Your task to perform on an android device: make emails show in primary in the gmail app Image 0: 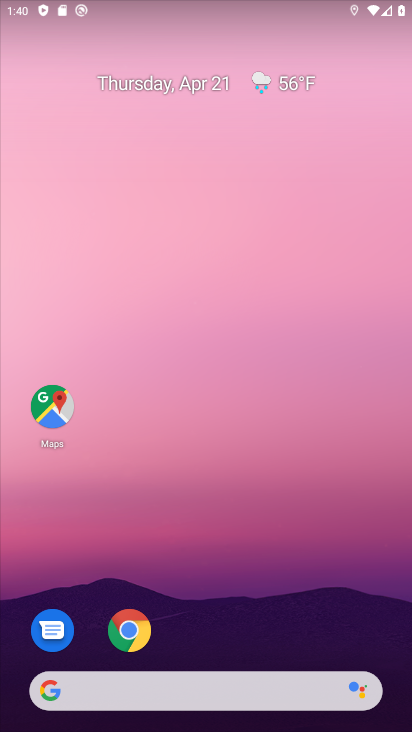
Step 0: drag from (341, 614) to (225, 16)
Your task to perform on an android device: make emails show in primary in the gmail app Image 1: 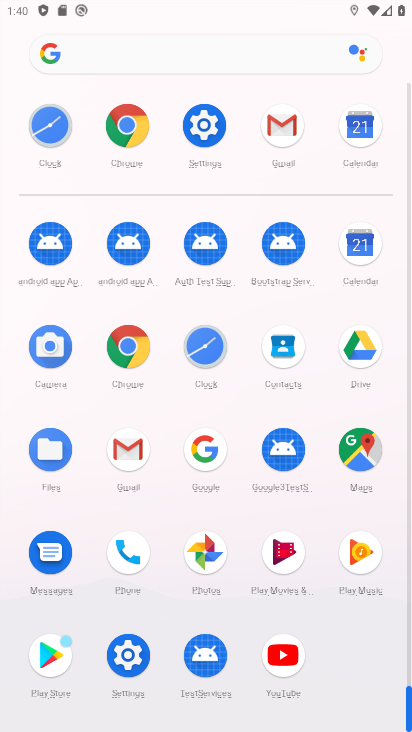
Step 1: click (113, 450)
Your task to perform on an android device: make emails show in primary in the gmail app Image 2: 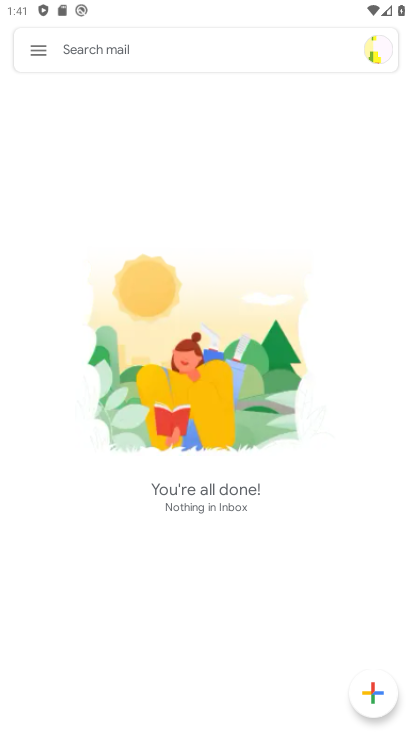
Step 2: click (44, 56)
Your task to perform on an android device: make emails show in primary in the gmail app Image 3: 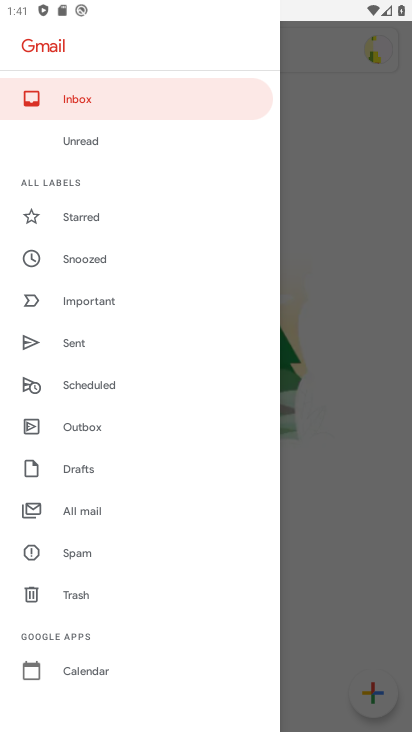
Step 3: drag from (192, 658) to (137, 217)
Your task to perform on an android device: make emails show in primary in the gmail app Image 4: 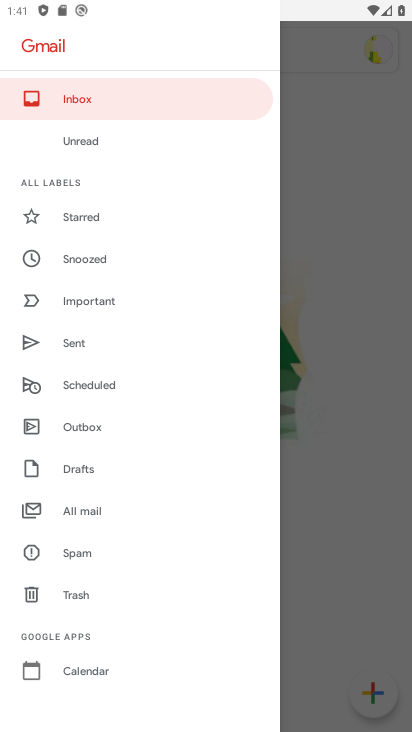
Step 4: drag from (118, 619) to (178, 147)
Your task to perform on an android device: make emails show in primary in the gmail app Image 5: 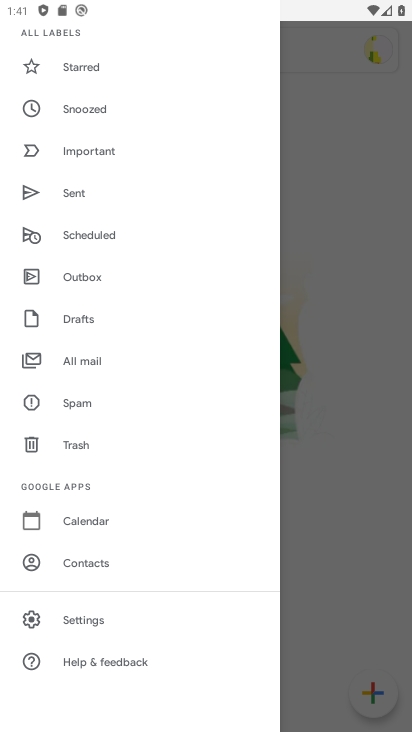
Step 5: click (94, 621)
Your task to perform on an android device: make emails show in primary in the gmail app Image 6: 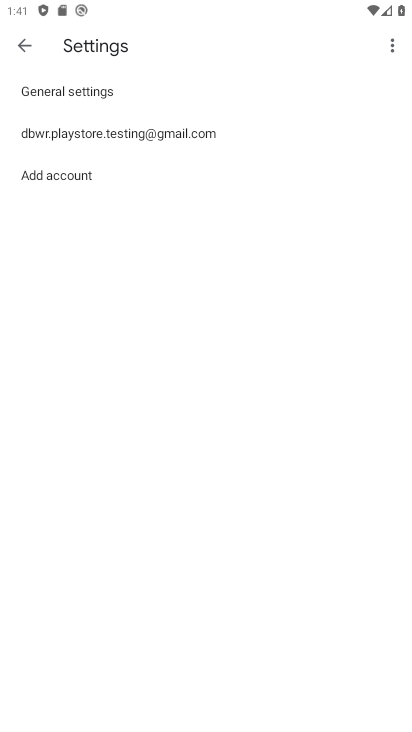
Step 6: click (171, 127)
Your task to perform on an android device: make emails show in primary in the gmail app Image 7: 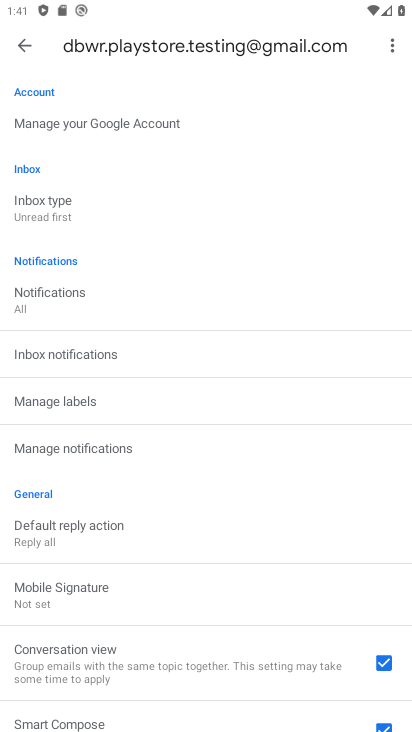
Step 7: click (46, 199)
Your task to perform on an android device: make emails show in primary in the gmail app Image 8: 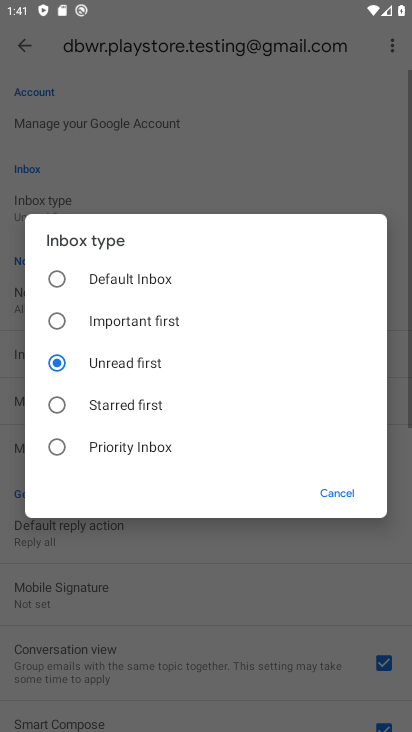
Step 8: click (94, 276)
Your task to perform on an android device: make emails show in primary in the gmail app Image 9: 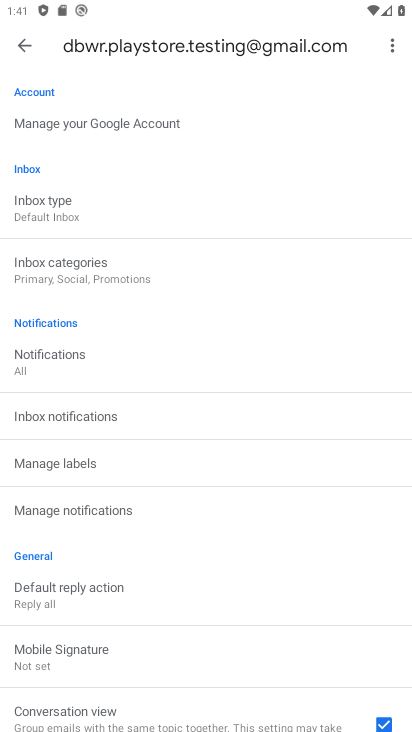
Step 9: click (70, 271)
Your task to perform on an android device: make emails show in primary in the gmail app Image 10: 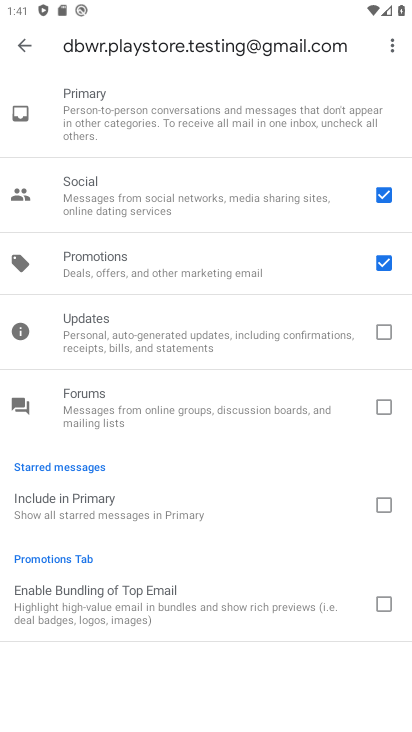
Step 10: click (390, 189)
Your task to perform on an android device: make emails show in primary in the gmail app Image 11: 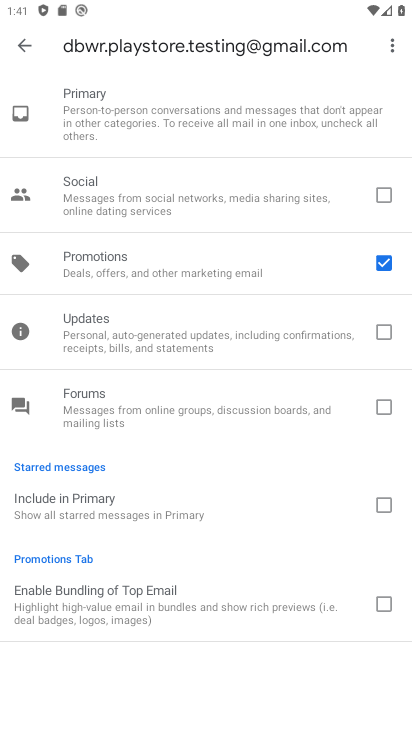
Step 11: click (382, 260)
Your task to perform on an android device: make emails show in primary in the gmail app Image 12: 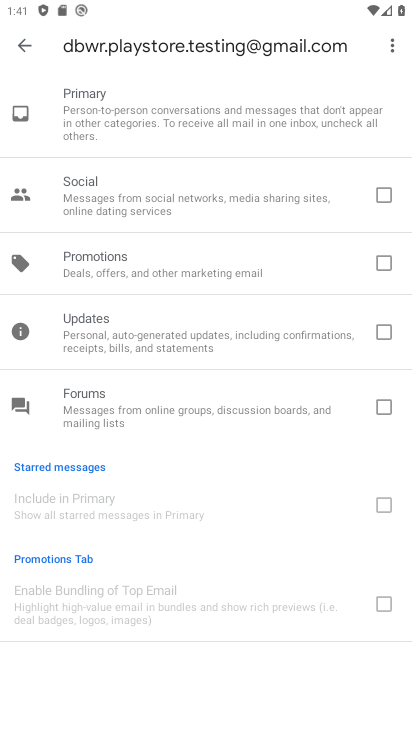
Step 12: task complete